Your task to perform on an android device: turn vacation reply on in the gmail app Image 0: 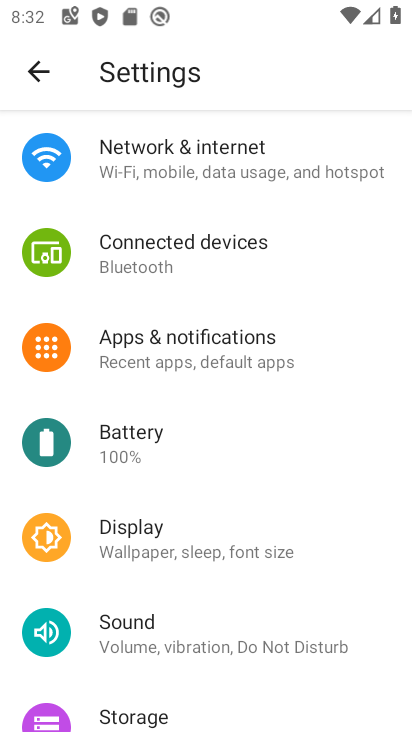
Step 0: press home button
Your task to perform on an android device: turn vacation reply on in the gmail app Image 1: 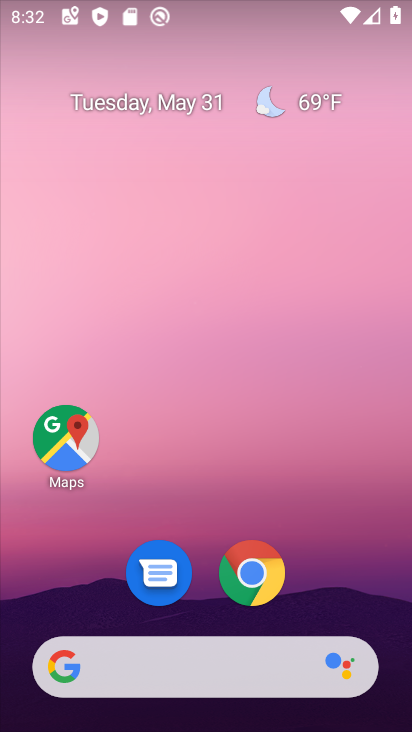
Step 1: drag from (202, 541) to (258, 59)
Your task to perform on an android device: turn vacation reply on in the gmail app Image 2: 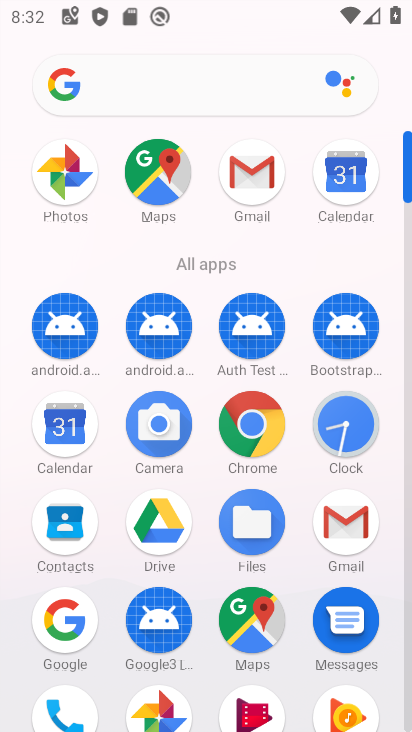
Step 2: click (250, 169)
Your task to perform on an android device: turn vacation reply on in the gmail app Image 3: 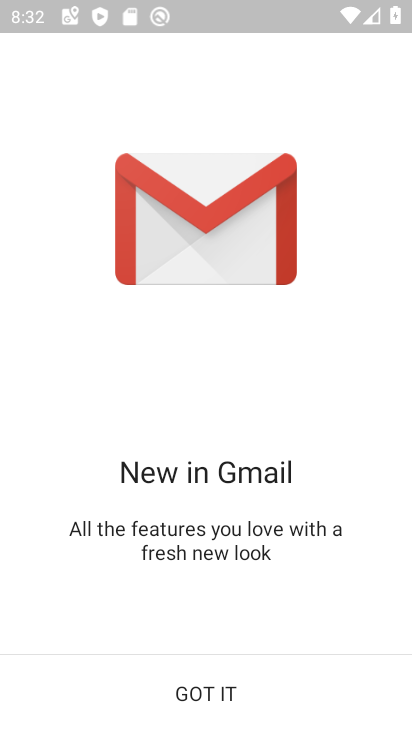
Step 3: click (206, 694)
Your task to perform on an android device: turn vacation reply on in the gmail app Image 4: 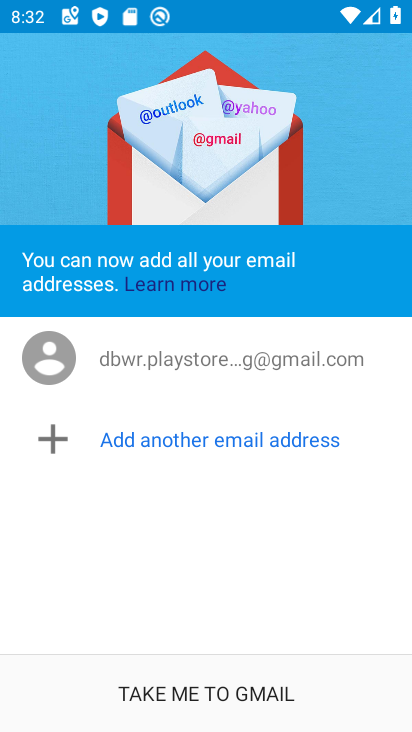
Step 4: click (206, 694)
Your task to perform on an android device: turn vacation reply on in the gmail app Image 5: 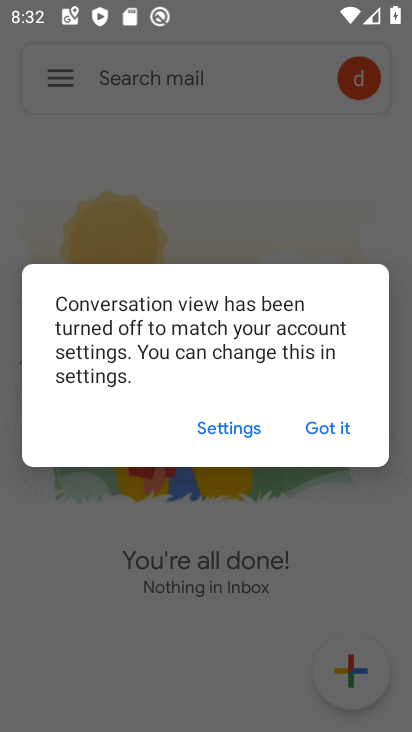
Step 5: click (320, 425)
Your task to perform on an android device: turn vacation reply on in the gmail app Image 6: 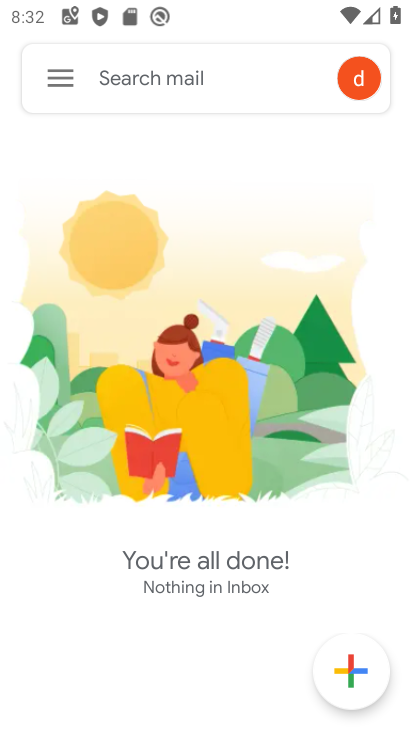
Step 6: click (56, 78)
Your task to perform on an android device: turn vacation reply on in the gmail app Image 7: 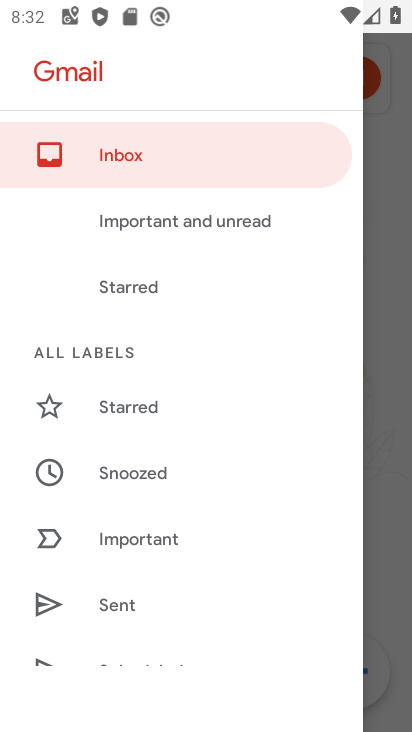
Step 7: drag from (134, 585) to (201, 118)
Your task to perform on an android device: turn vacation reply on in the gmail app Image 8: 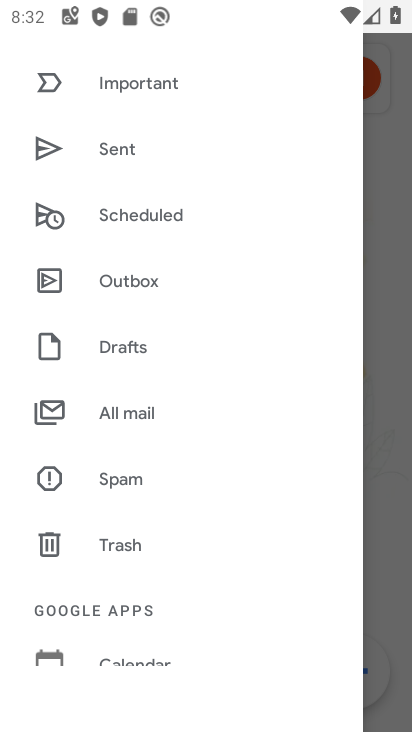
Step 8: drag from (194, 592) to (257, 213)
Your task to perform on an android device: turn vacation reply on in the gmail app Image 9: 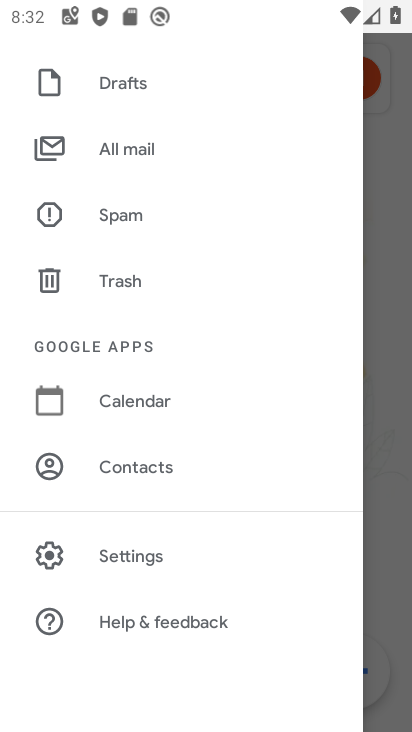
Step 9: click (141, 567)
Your task to perform on an android device: turn vacation reply on in the gmail app Image 10: 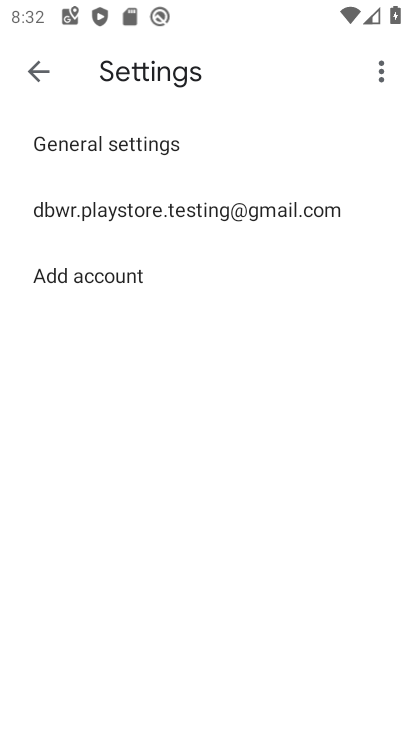
Step 10: click (174, 218)
Your task to perform on an android device: turn vacation reply on in the gmail app Image 11: 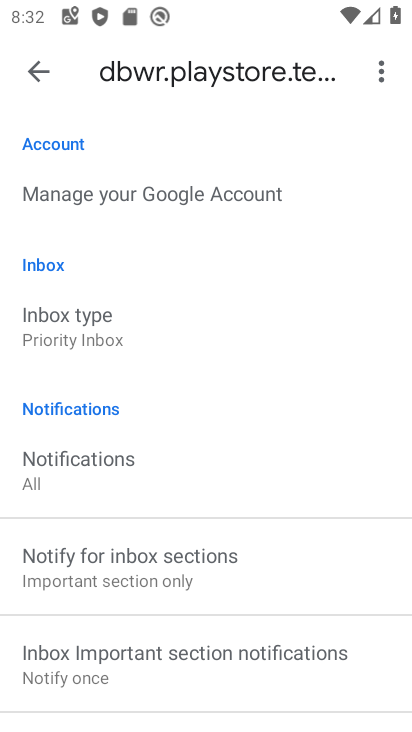
Step 11: task complete